Your task to perform on an android device: check android version Image 0: 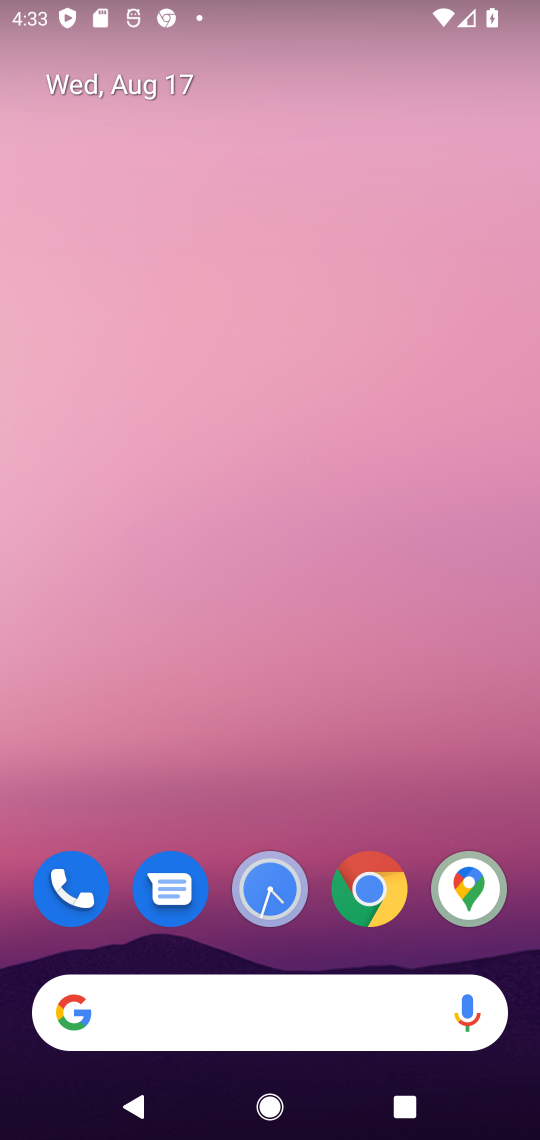
Step 0: drag from (305, 782) to (305, 92)
Your task to perform on an android device: check android version Image 1: 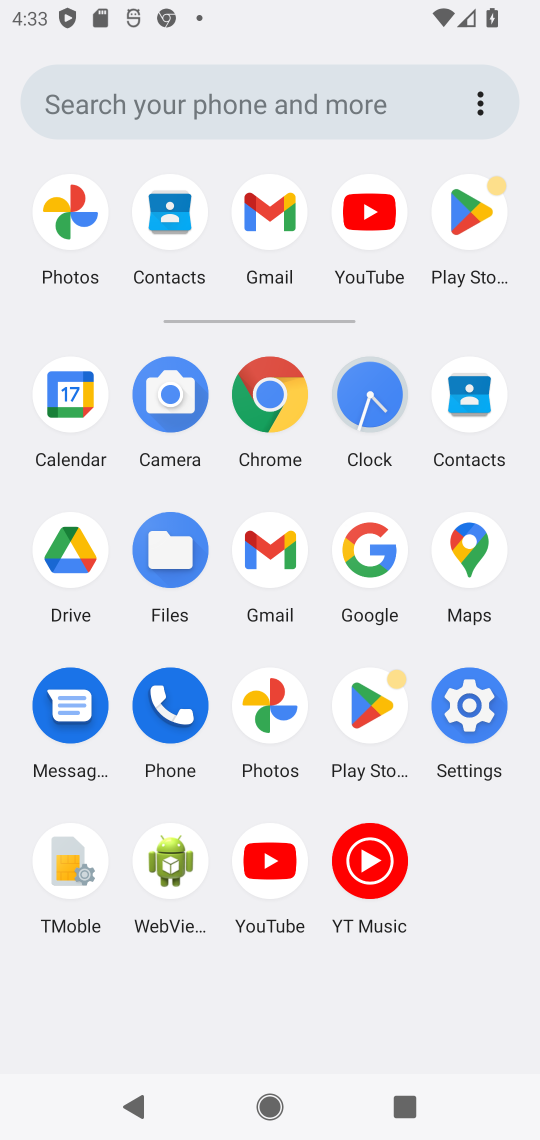
Step 1: click (470, 706)
Your task to perform on an android device: check android version Image 2: 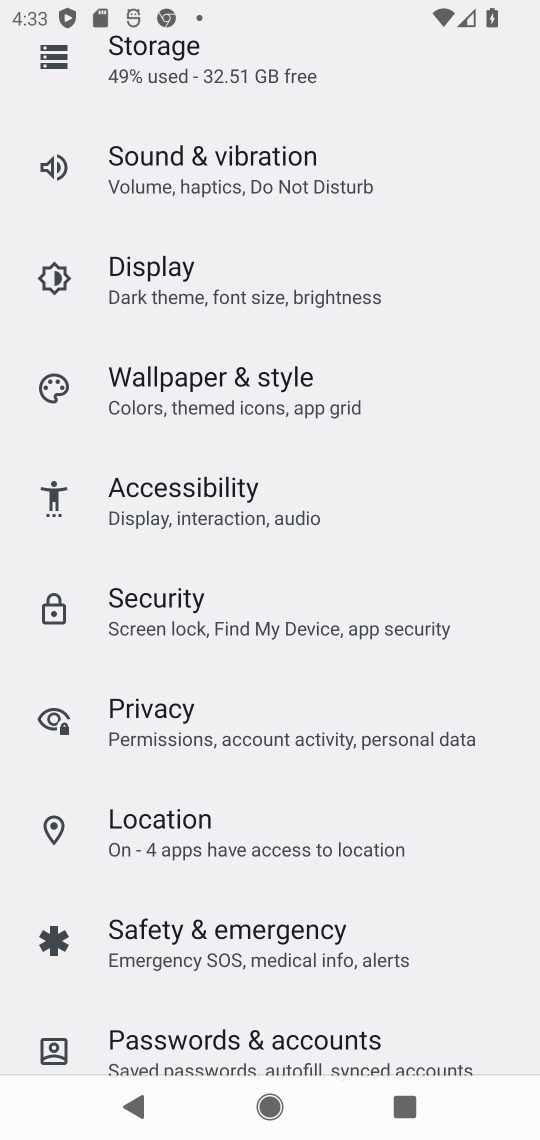
Step 2: drag from (387, 985) to (354, 421)
Your task to perform on an android device: check android version Image 3: 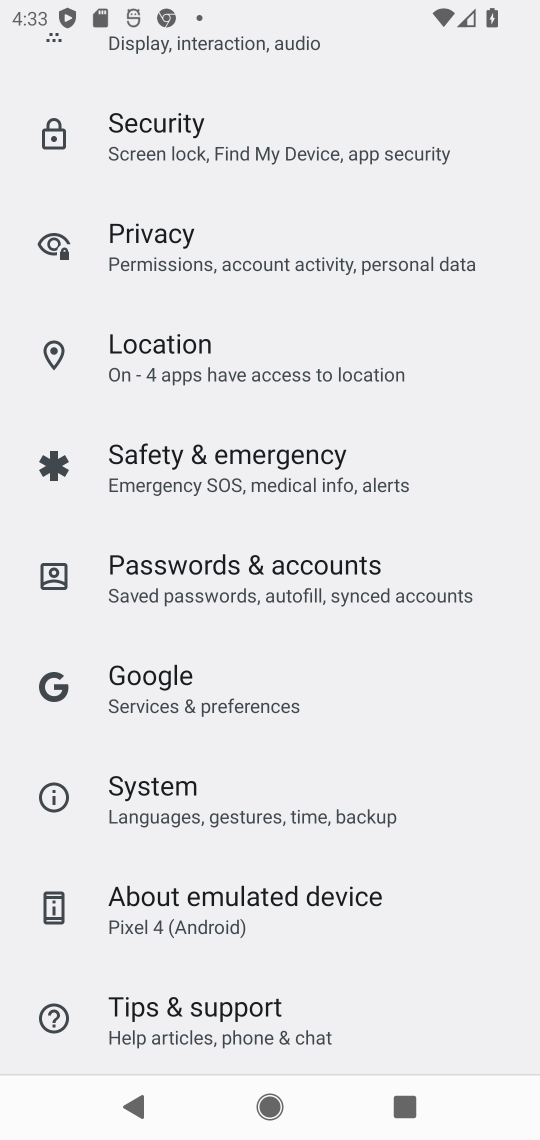
Step 3: click (220, 904)
Your task to perform on an android device: check android version Image 4: 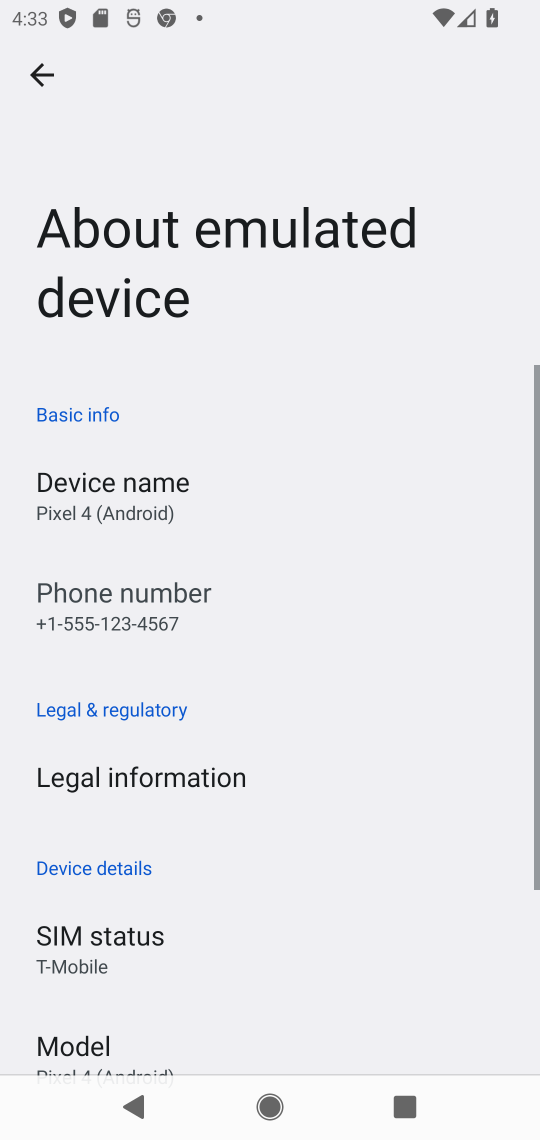
Step 4: drag from (282, 952) to (258, 348)
Your task to perform on an android device: check android version Image 5: 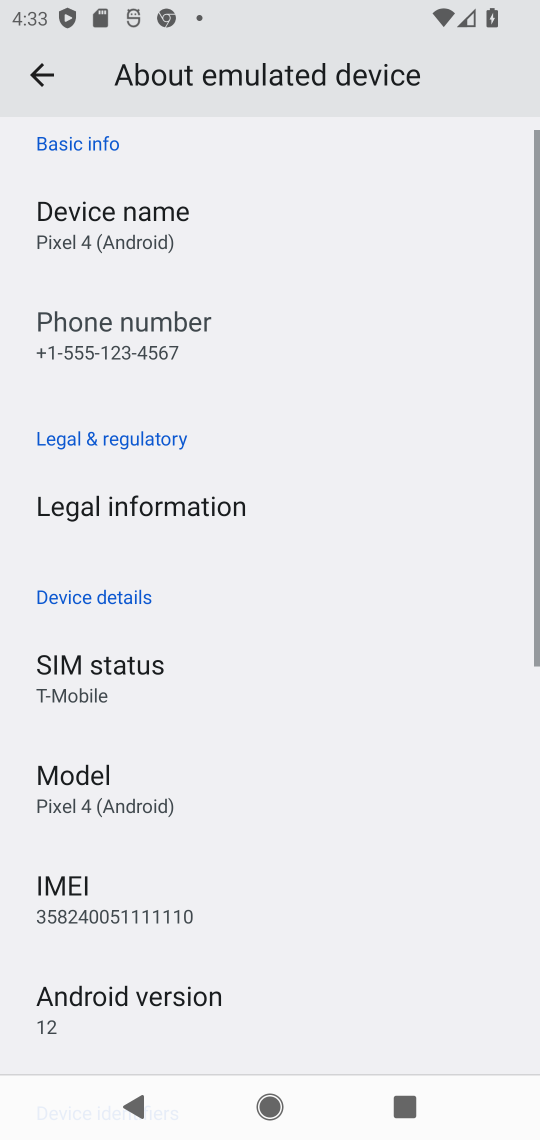
Step 5: click (158, 987)
Your task to perform on an android device: check android version Image 6: 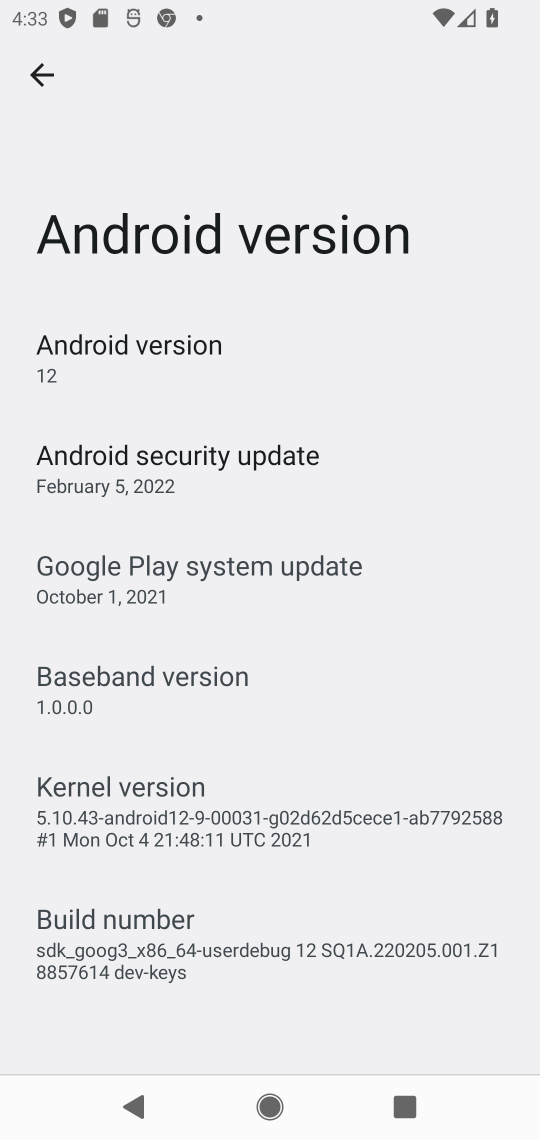
Step 6: task complete